Your task to perform on an android device: Go to display settings Image 0: 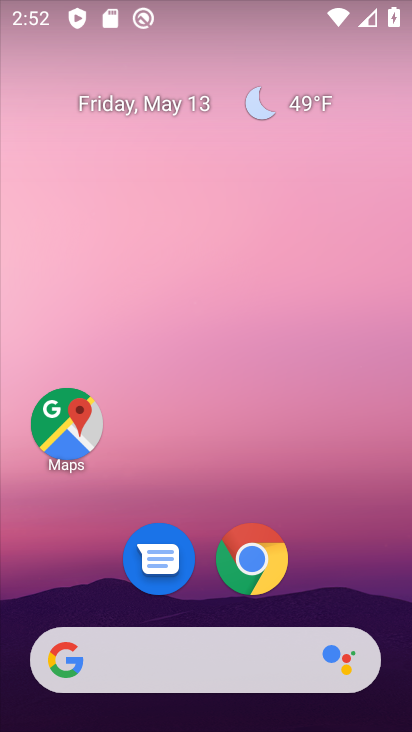
Step 0: drag from (387, 609) to (342, 81)
Your task to perform on an android device: Go to display settings Image 1: 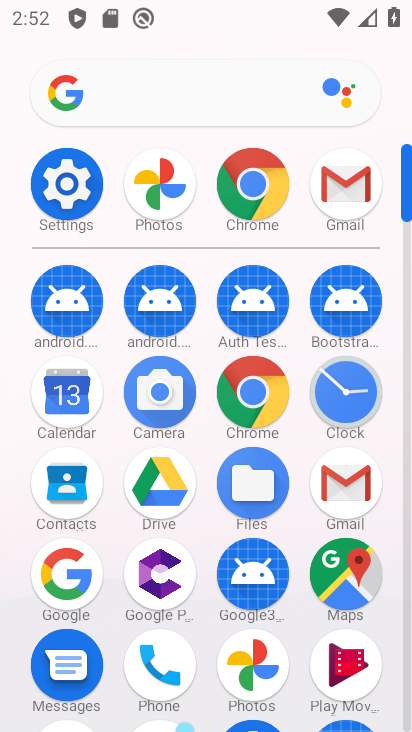
Step 1: click (408, 706)
Your task to perform on an android device: Go to display settings Image 2: 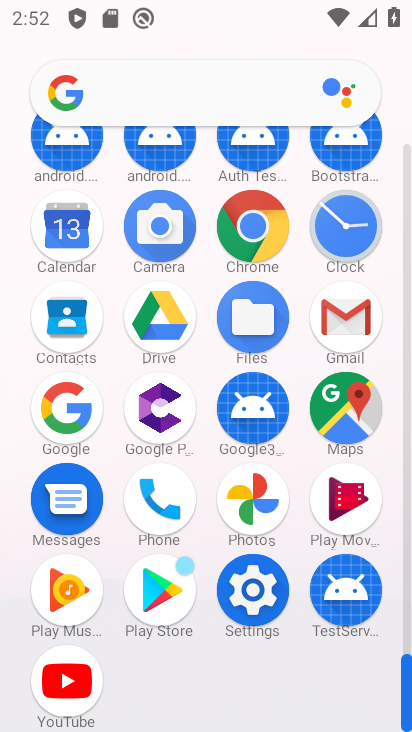
Step 2: click (252, 588)
Your task to perform on an android device: Go to display settings Image 3: 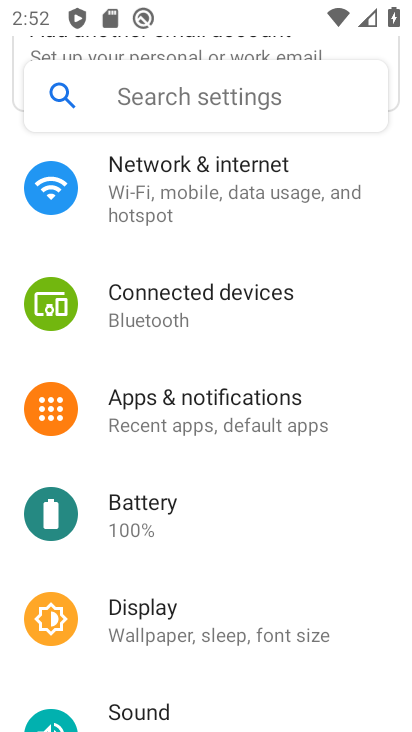
Step 3: click (135, 624)
Your task to perform on an android device: Go to display settings Image 4: 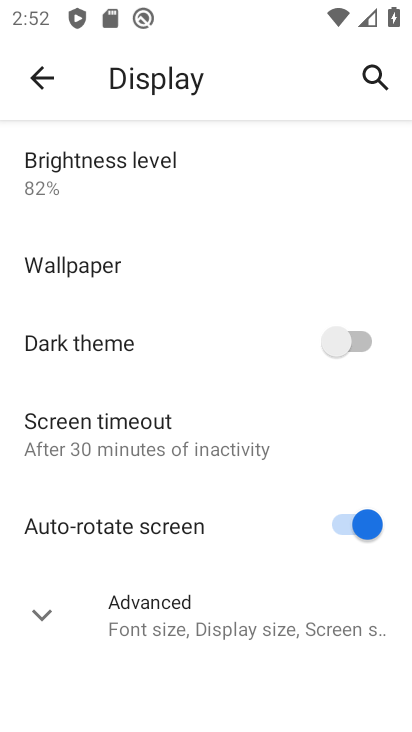
Step 4: click (42, 610)
Your task to perform on an android device: Go to display settings Image 5: 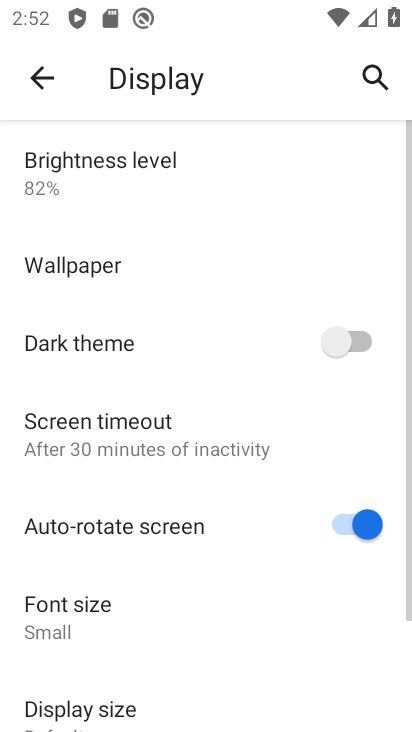
Step 5: task complete